Your task to perform on an android device: Open Chrome and go to settings Image 0: 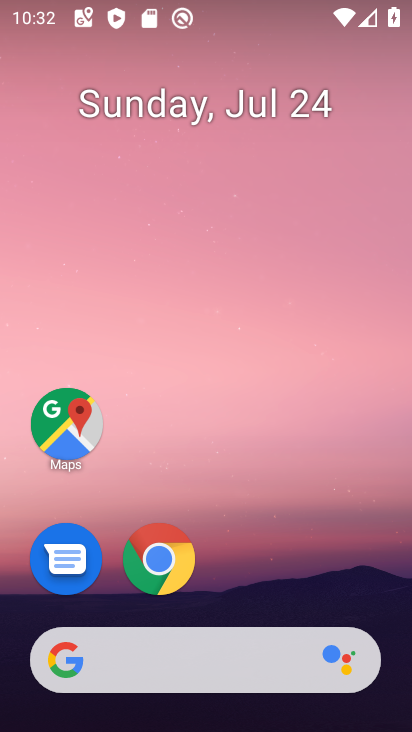
Step 0: click (163, 548)
Your task to perform on an android device: Open Chrome and go to settings Image 1: 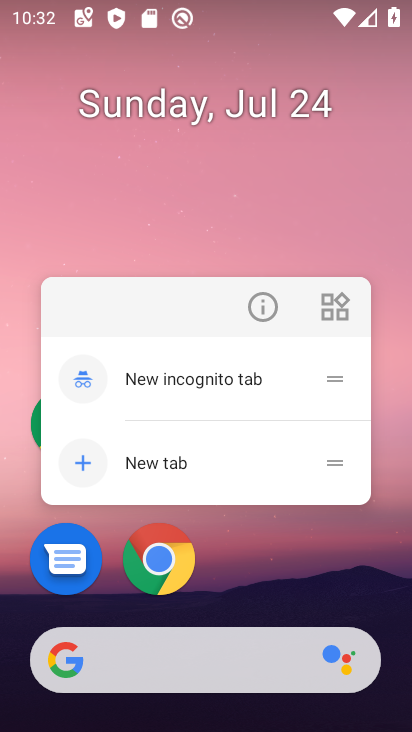
Step 1: click (157, 557)
Your task to perform on an android device: Open Chrome and go to settings Image 2: 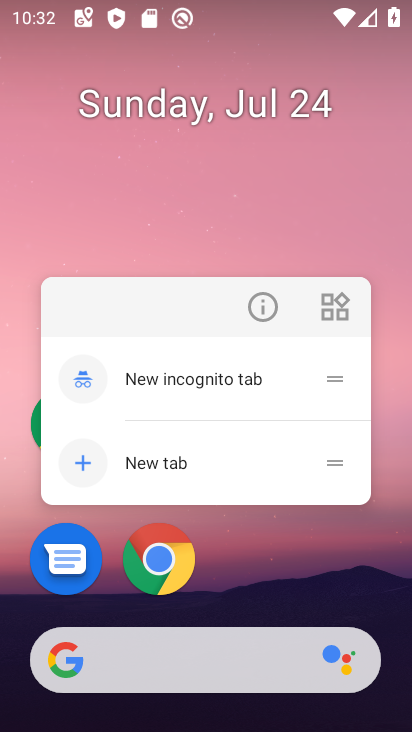
Step 2: click (156, 556)
Your task to perform on an android device: Open Chrome and go to settings Image 3: 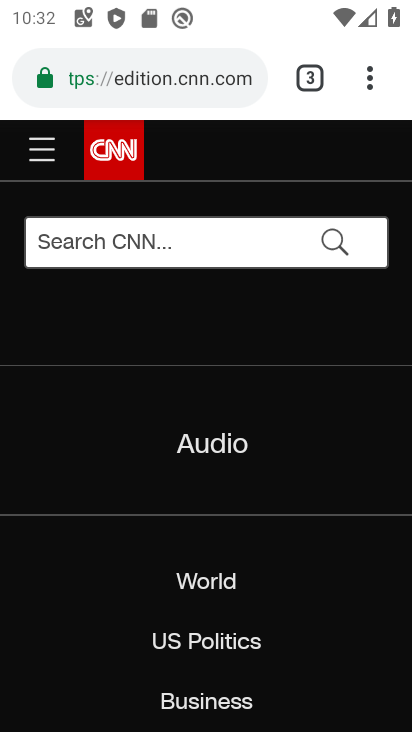
Step 3: task complete